Your task to perform on an android device: change the clock display to digital Image 0: 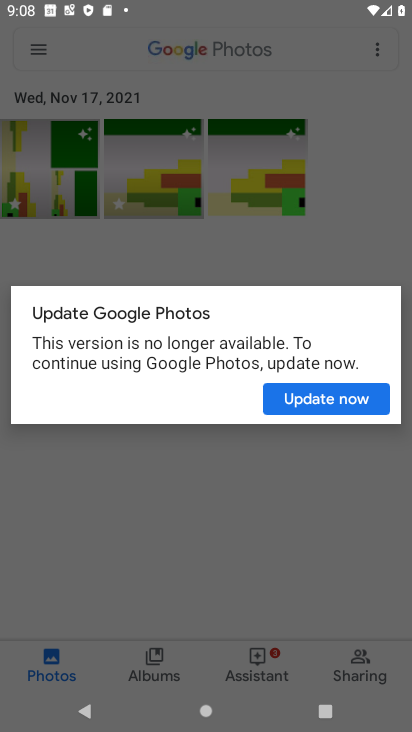
Step 0: press home button
Your task to perform on an android device: change the clock display to digital Image 1: 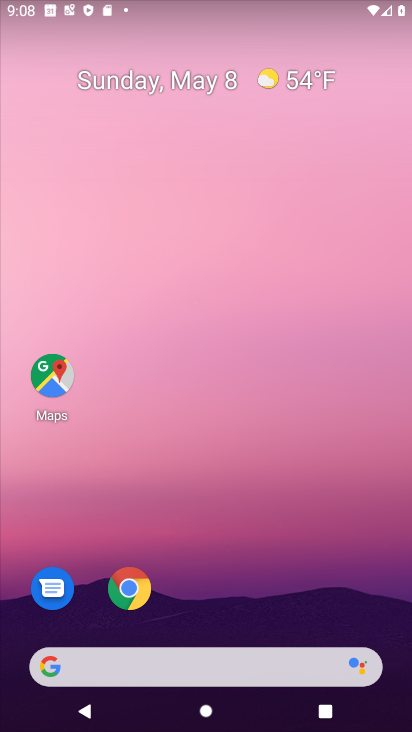
Step 1: drag from (13, 657) to (178, 237)
Your task to perform on an android device: change the clock display to digital Image 2: 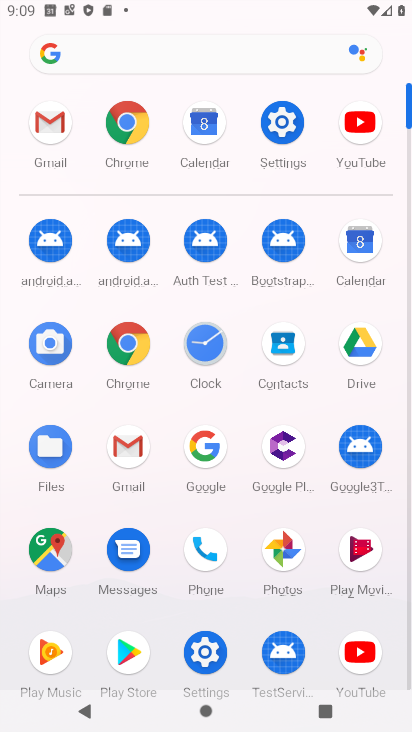
Step 2: click (219, 339)
Your task to perform on an android device: change the clock display to digital Image 3: 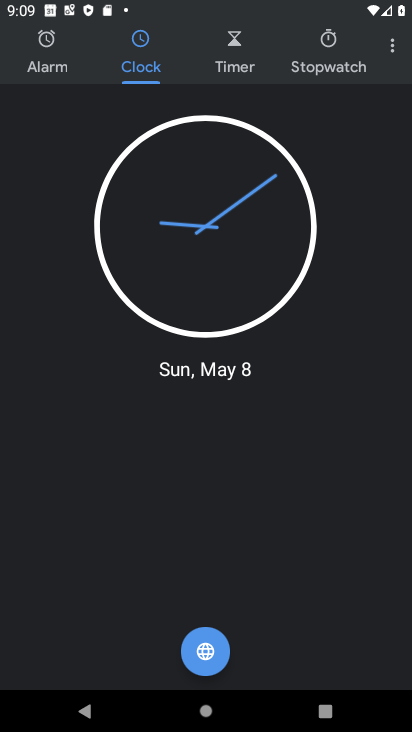
Step 3: click (392, 41)
Your task to perform on an android device: change the clock display to digital Image 4: 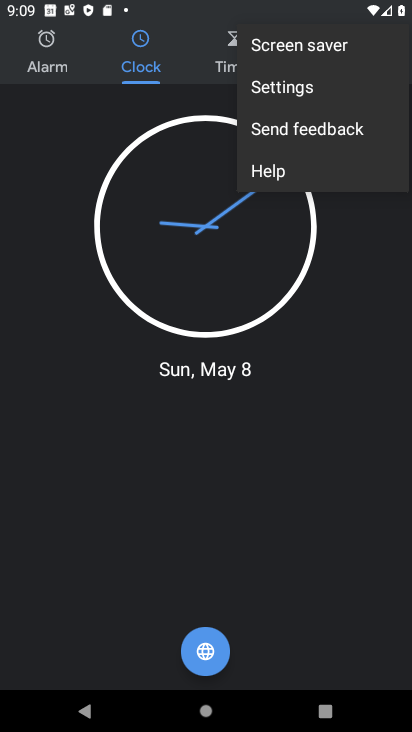
Step 4: click (350, 84)
Your task to perform on an android device: change the clock display to digital Image 5: 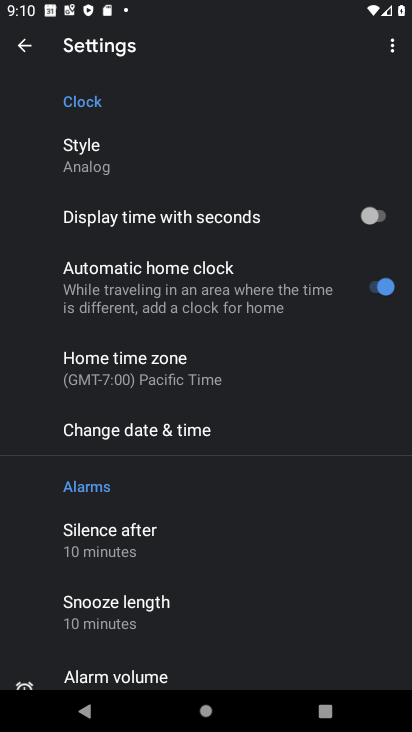
Step 5: click (168, 158)
Your task to perform on an android device: change the clock display to digital Image 6: 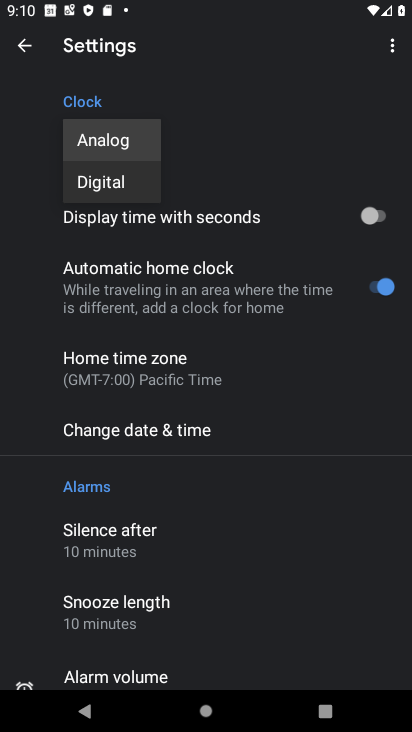
Step 6: click (93, 184)
Your task to perform on an android device: change the clock display to digital Image 7: 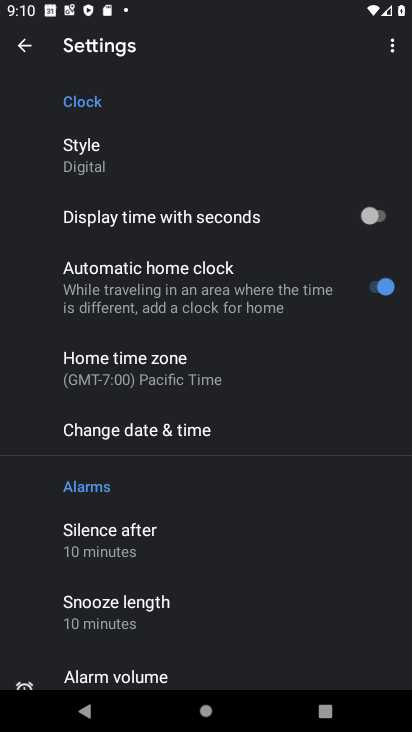
Step 7: task complete